Your task to perform on an android device: turn notification dots off Image 0: 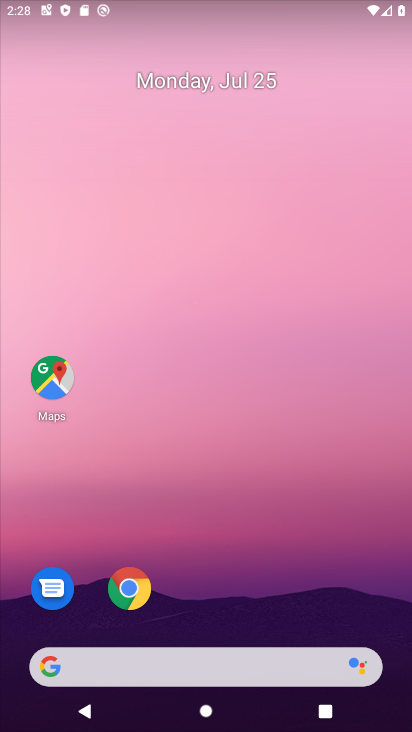
Step 0: drag from (195, 564) to (261, 0)
Your task to perform on an android device: turn notification dots off Image 1: 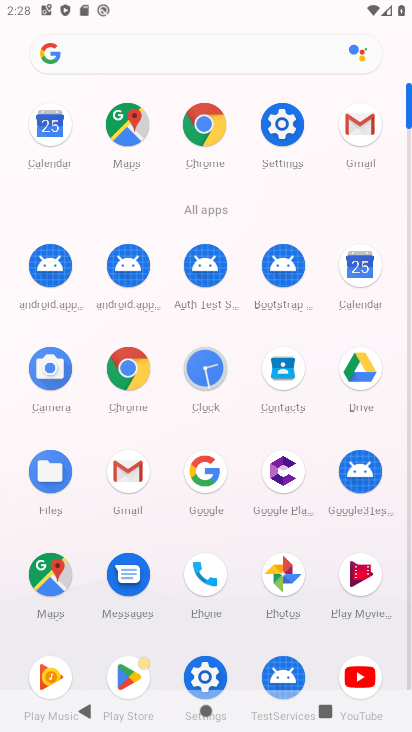
Step 1: click (278, 144)
Your task to perform on an android device: turn notification dots off Image 2: 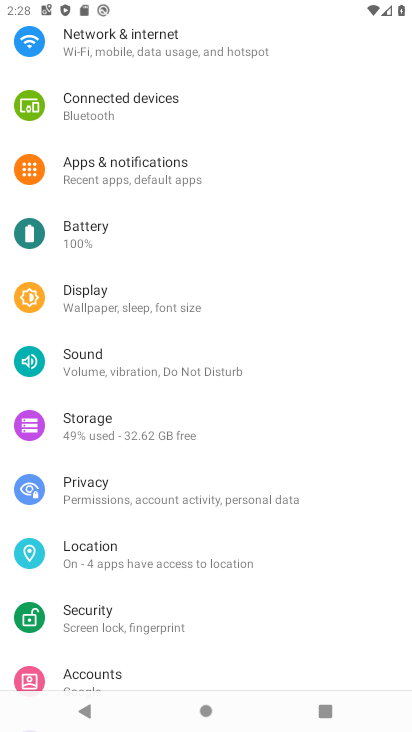
Step 2: click (148, 171)
Your task to perform on an android device: turn notification dots off Image 3: 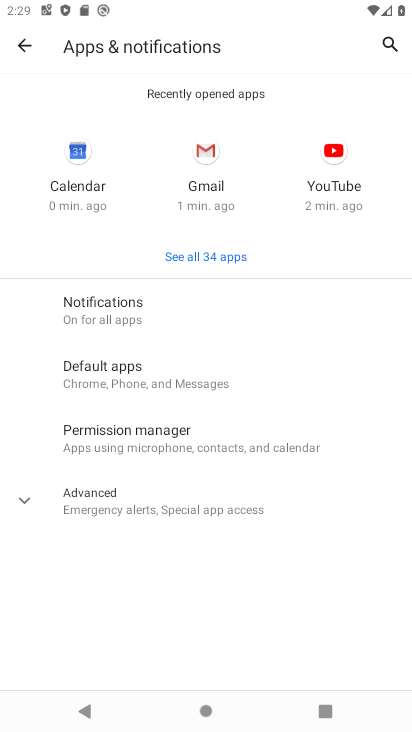
Step 3: click (28, 494)
Your task to perform on an android device: turn notification dots off Image 4: 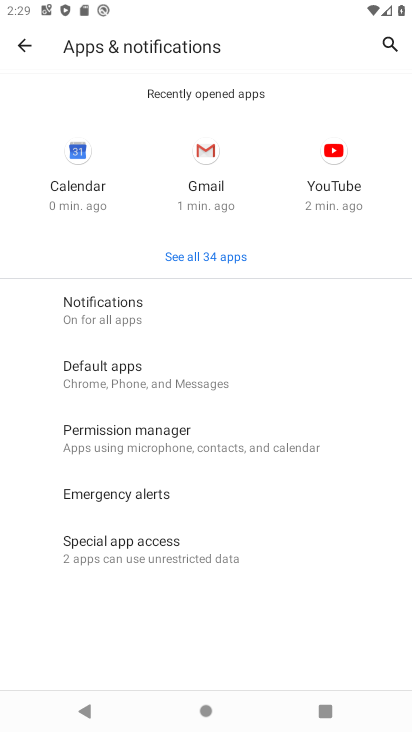
Step 4: click (117, 312)
Your task to perform on an android device: turn notification dots off Image 5: 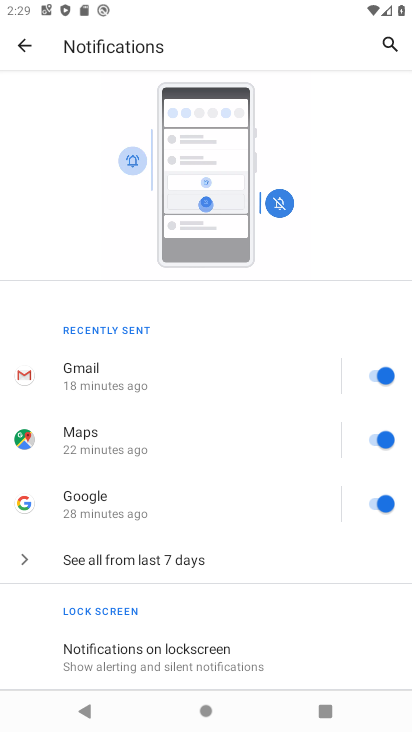
Step 5: drag from (233, 633) to (268, 333)
Your task to perform on an android device: turn notification dots off Image 6: 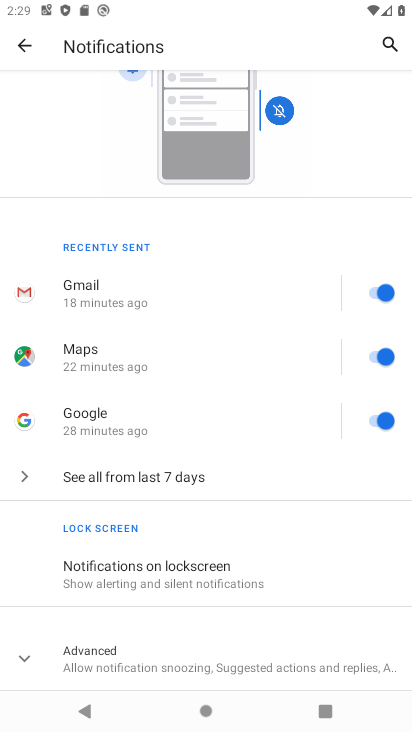
Step 6: drag from (156, 665) to (204, 403)
Your task to perform on an android device: turn notification dots off Image 7: 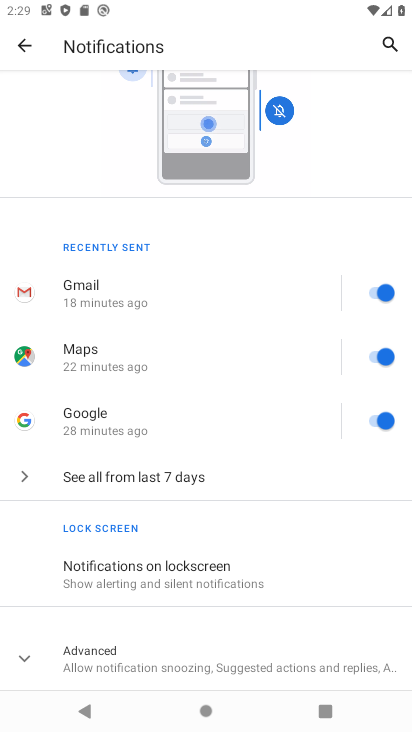
Step 7: click (38, 657)
Your task to perform on an android device: turn notification dots off Image 8: 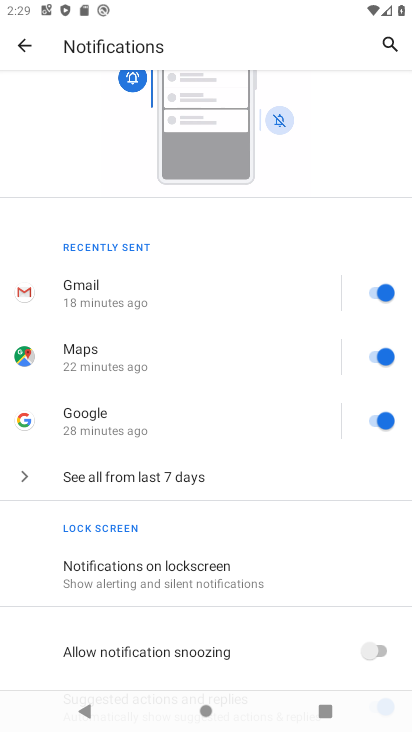
Step 8: drag from (228, 664) to (270, 503)
Your task to perform on an android device: turn notification dots off Image 9: 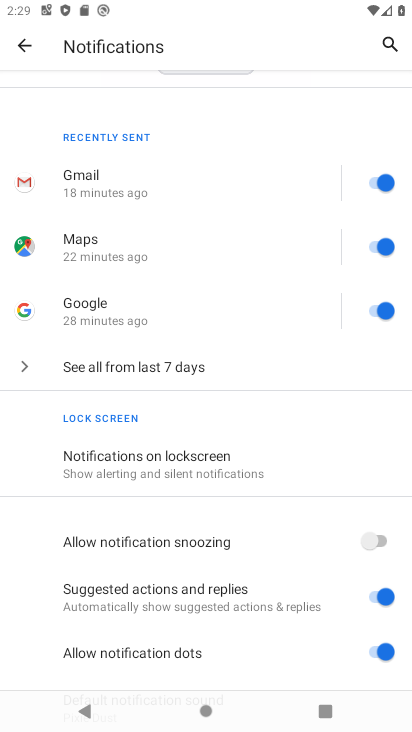
Step 9: click (385, 659)
Your task to perform on an android device: turn notification dots off Image 10: 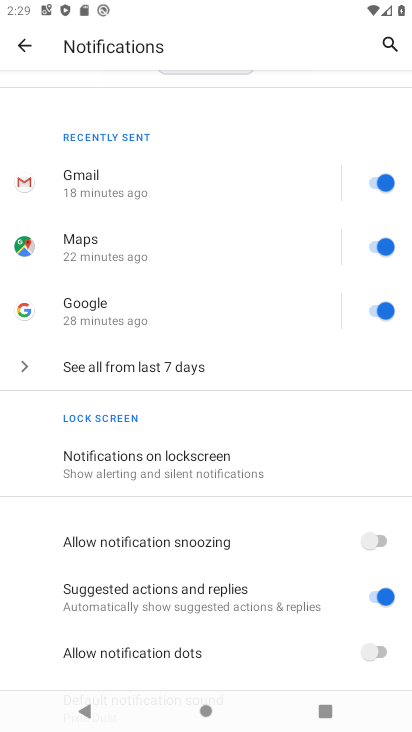
Step 10: task complete